Your task to perform on an android device: set the timer Image 0: 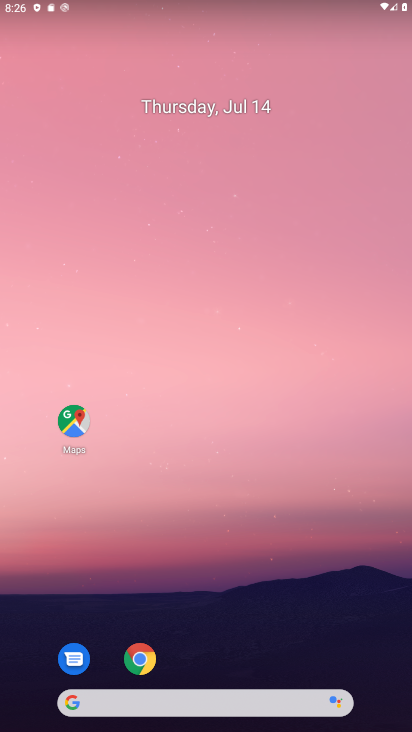
Step 0: drag from (205, 675) to (130, 70)
Your task to perform on an android device: set the timer Image 1: 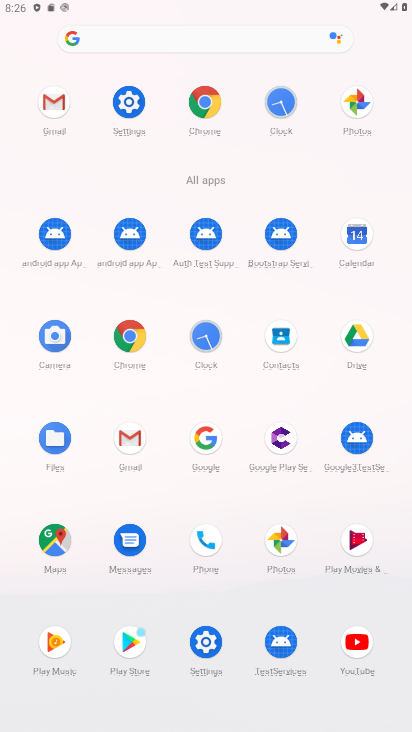
Step 1: click (202, 329)
Your task to perform on an android device: set the timer Image 2: 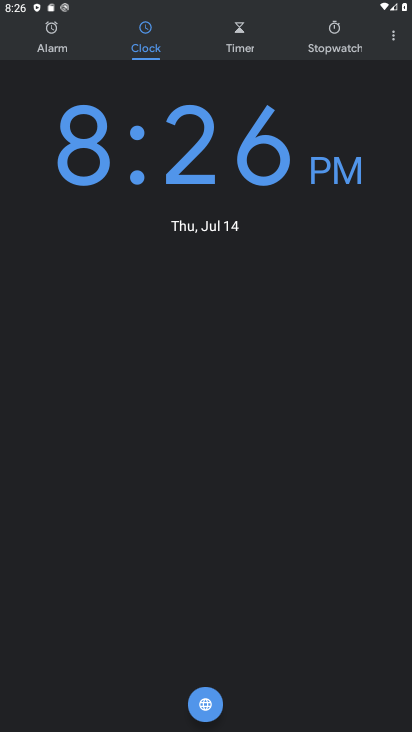
Step 2: click (220, 37)
Your task to perform on an android device: set the timer Image 3: 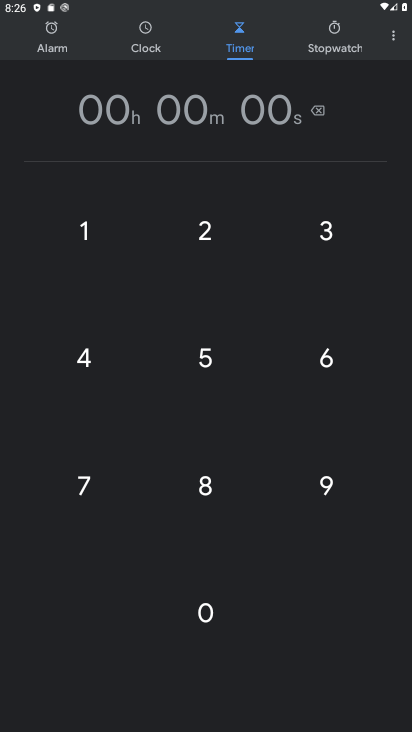
Step 3: click (207, 220)
Your task to perform on an android device: set the timer Image 4: 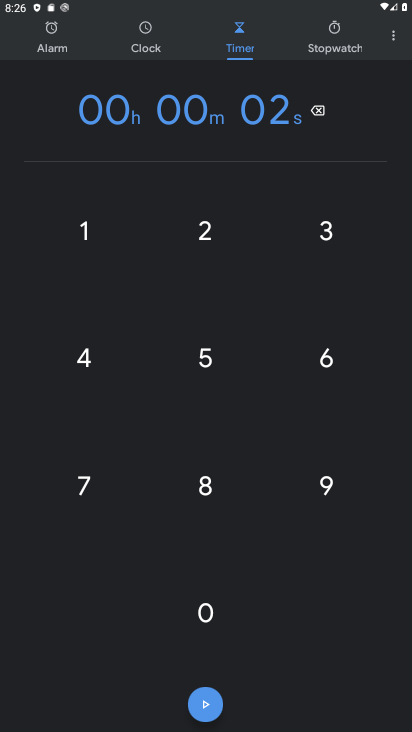
Step 4: click (211, 703)
Your task to perform on an android device: set the timer Image 5: 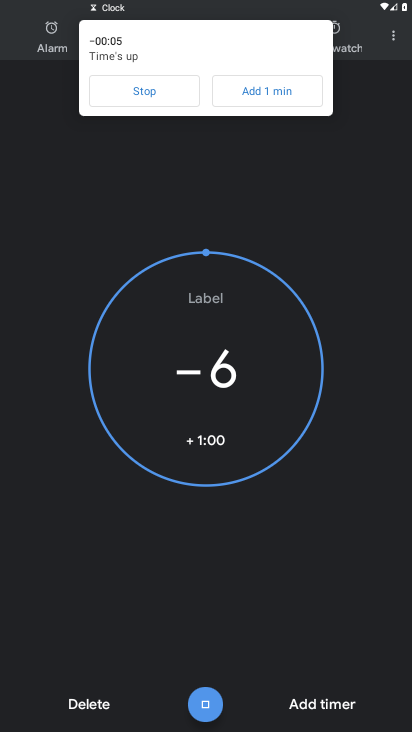
Step 5: task complete